Your task to perform on an android device: Open ESPN.com Image 0: 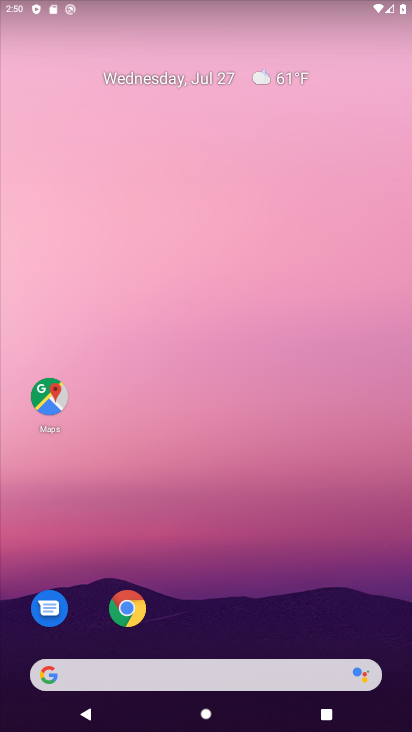
Step 0: click (374, 636)
Your task to perform on an android device: Open ESPN.com Image 1: 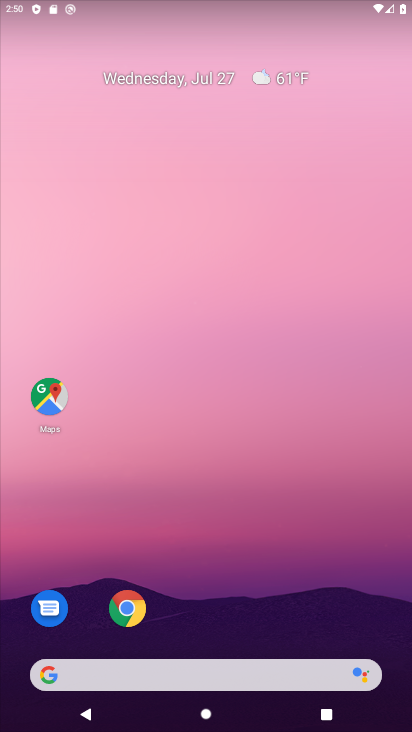
Step 1: click (135, 601)
Your task to perform on an android device: Open ESPN.com Image 2: 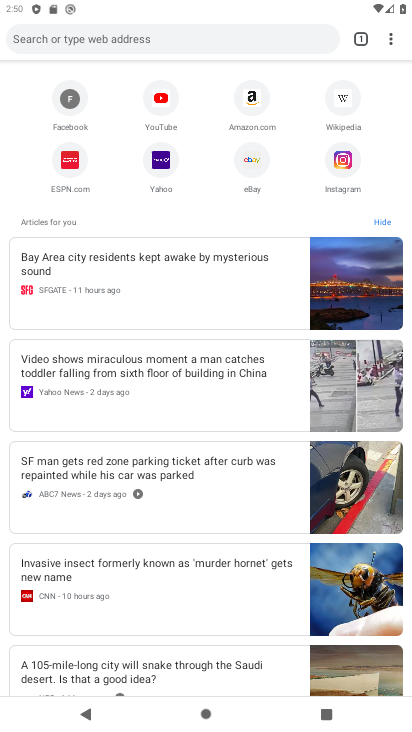
Step 2: click (69, 163)
Your task to perform on an android device: Open ESPN.com Image 3: 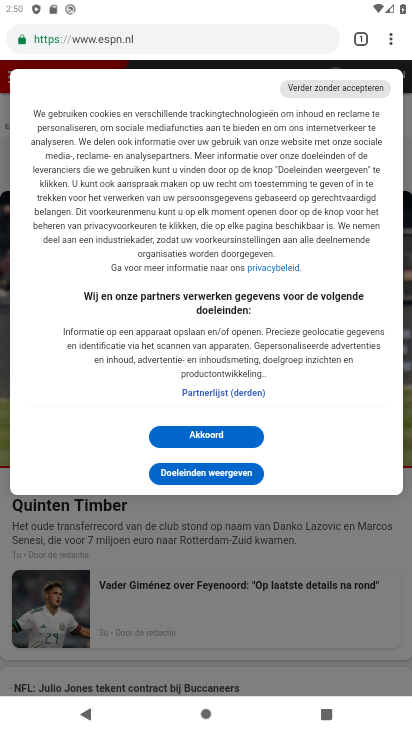
Step 3: task complete